Your task to perform on an android device: Go to internet settings Image 0: 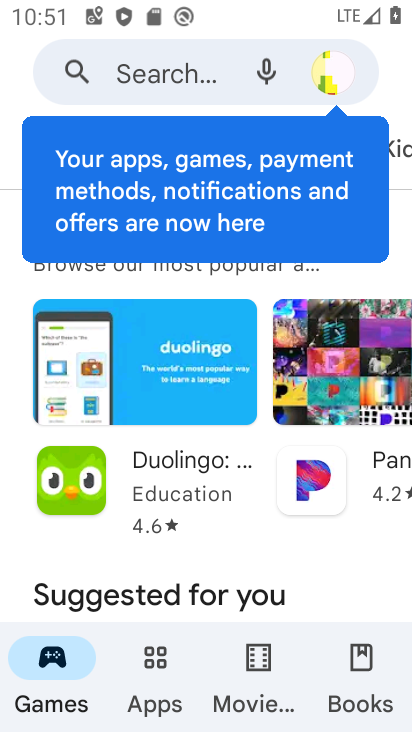
Step 0: press home button
Your task to perform on an android device: Go to internet settings Image 1: 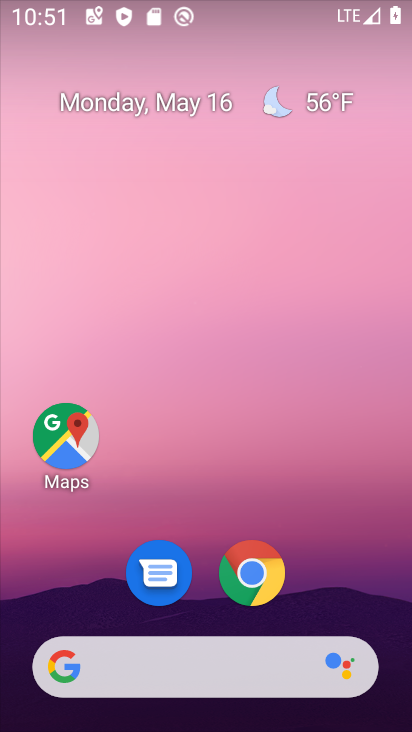
Step 1: drag from (252, 721) to (278, 23)
Your task to perform on an android device: Go to internet settings Image 2: 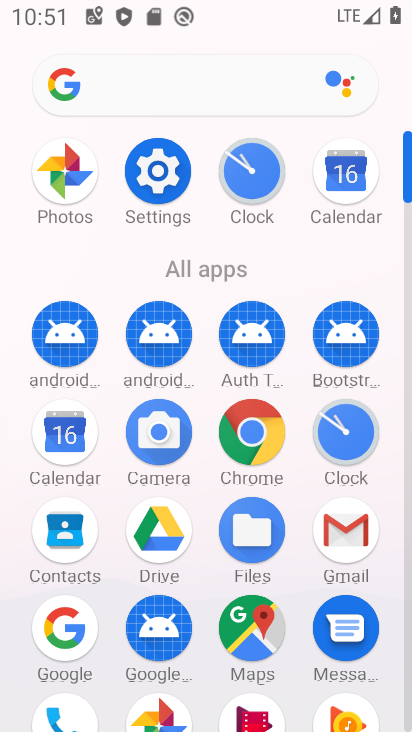
Step 2: click (145, 162)
Your task to perform on an android device: Go to internet settings Image 3: 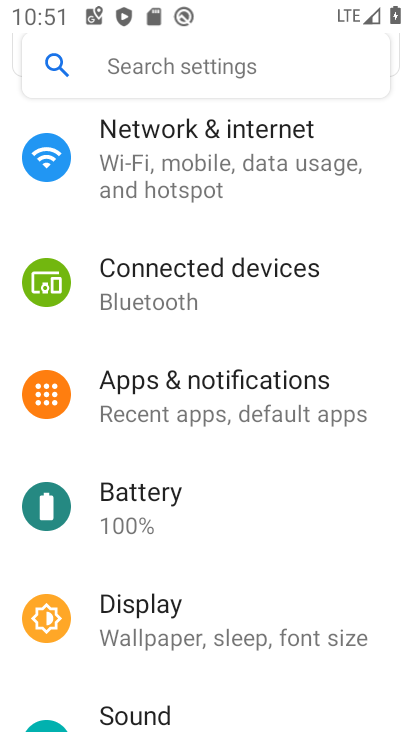
Step 3: click (291, 166)
Your task to perform on an android device: Go to internet settings Image 4: 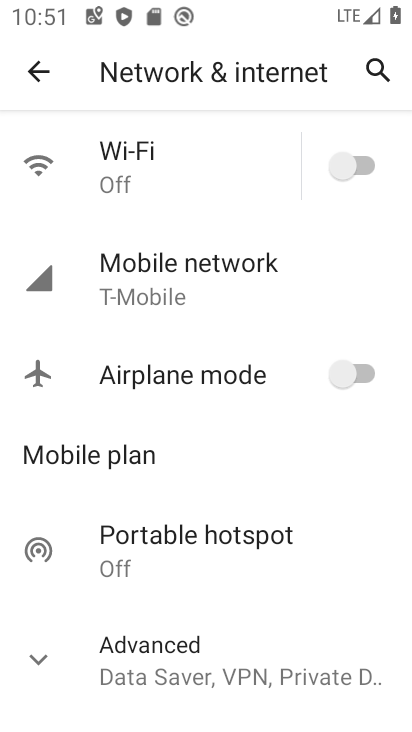
Step 4: task complete